Your task to perform on an android device: snooze an email in the gmail app Image 0: 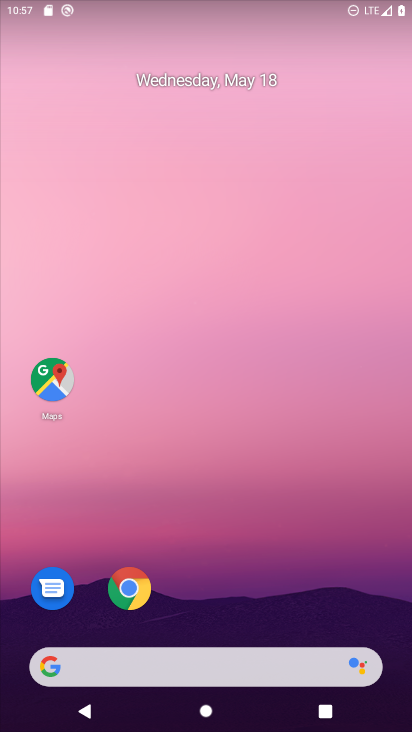
Step 0: drag from (355, 611) to (310, 77)
Your task to perform on an android device: snooze an email in the gmail app Image 1: 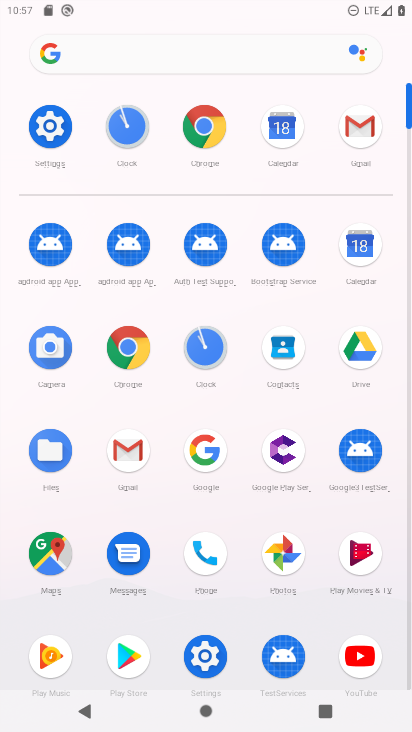
Step 1: click (361, 140)
Your task to perform on an android device: snooze an email in the gmail app Image 2: 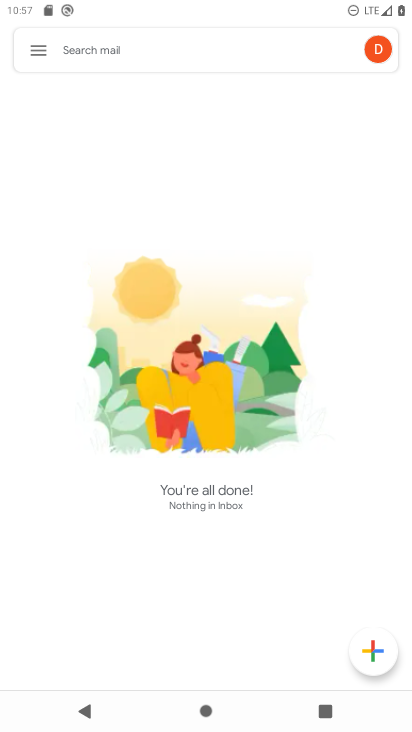
Step 2: click (28, 47)
Your task to perform on an android device: snooze an email in the gmail app Image 3: 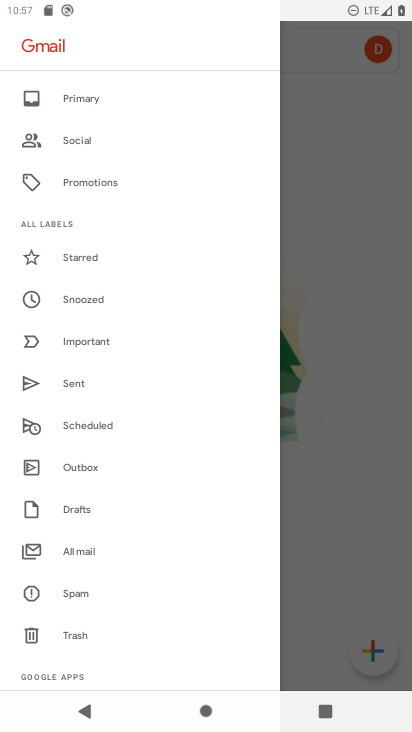
Step 3: click (71, 544)
Your task to perform on an android device: snooze an email in the gmail app Image 4: 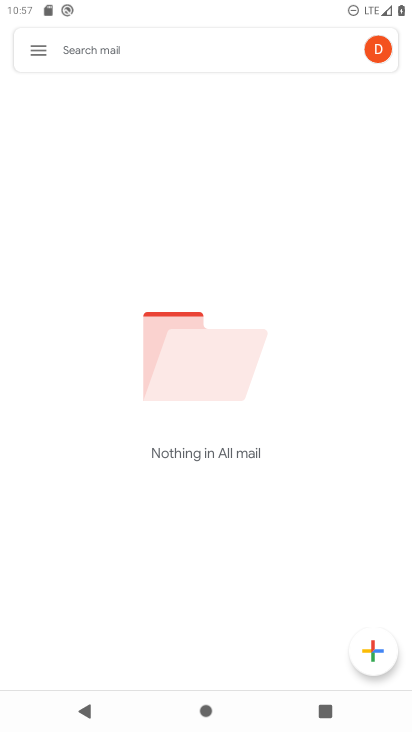
Step 4: task complete